Your task to perform on an android device: open a bookmark in the chrome app Image 0: 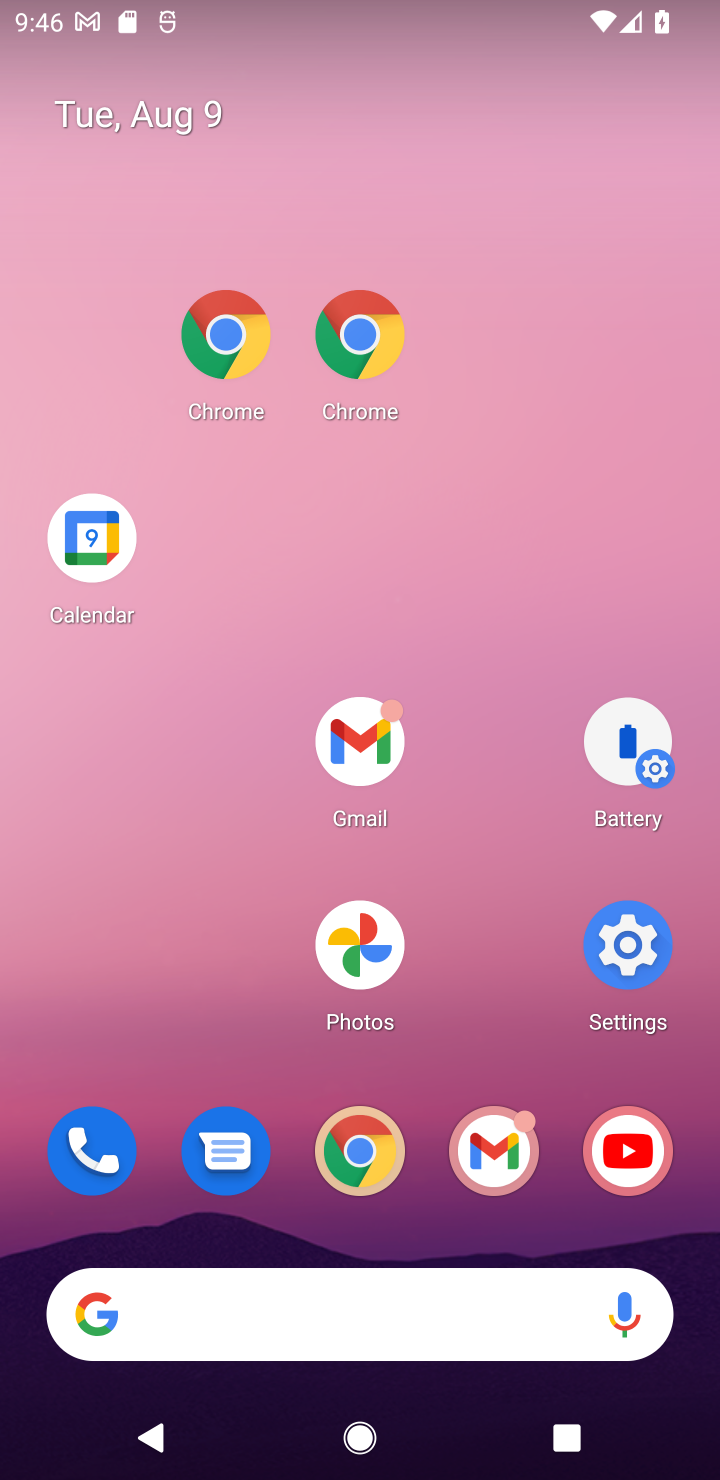
Step 0: click (271, 592)
Your task to perform on an android device: open a bookmark in the chrome app Image 1: 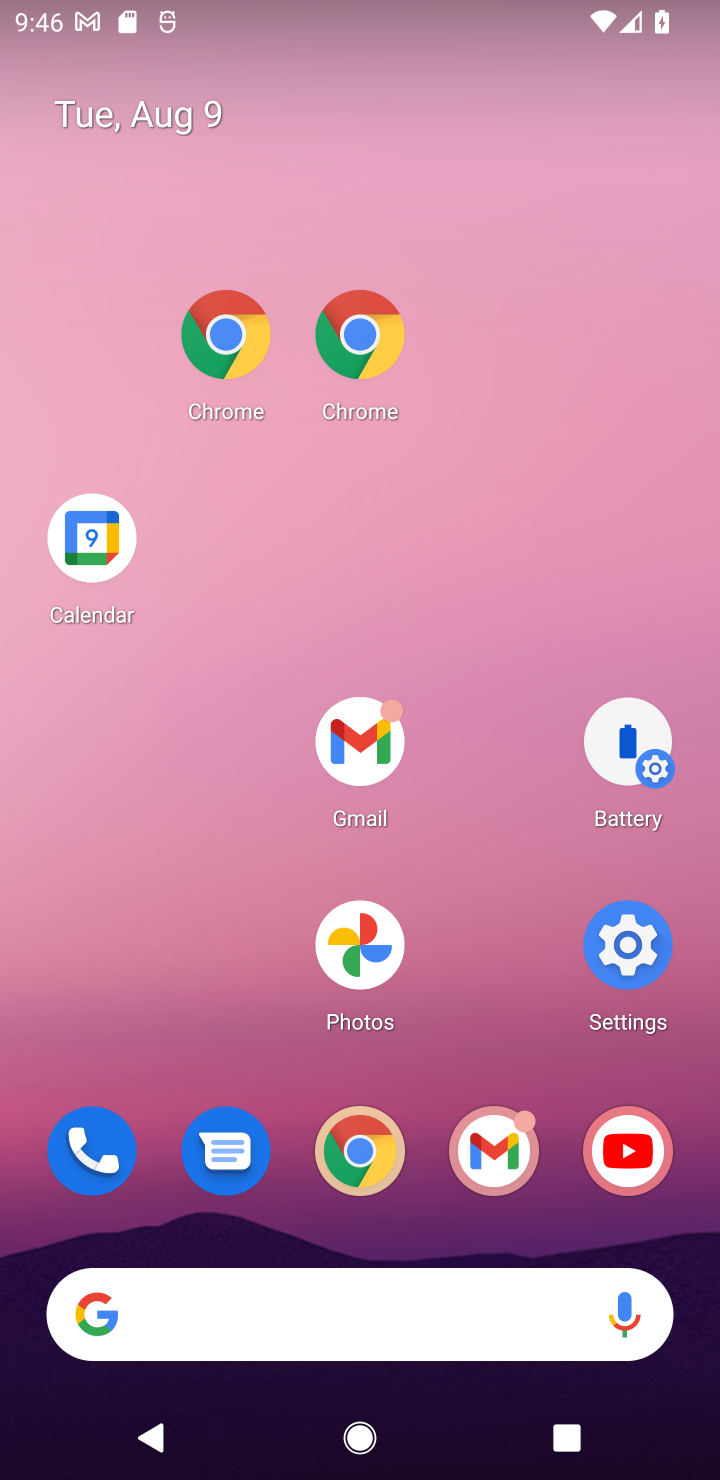
Step 1: drag from (365, 1000) to (409, 625)
Your task to perform on an android device: open a bookmark in the chrome app Image 2: 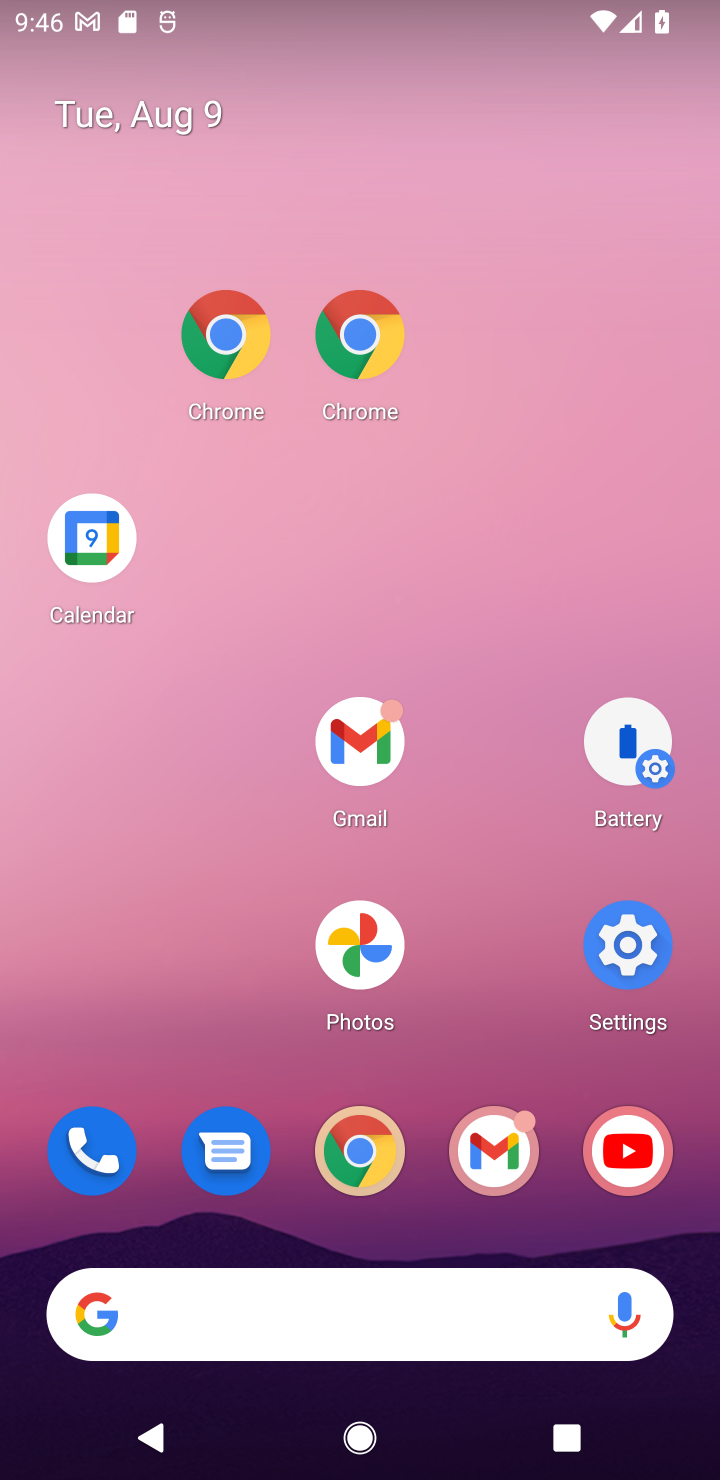
Step 2: click (480, 529)
Your task to perform on an android device: open a bookmark in the chrome app Image 3: 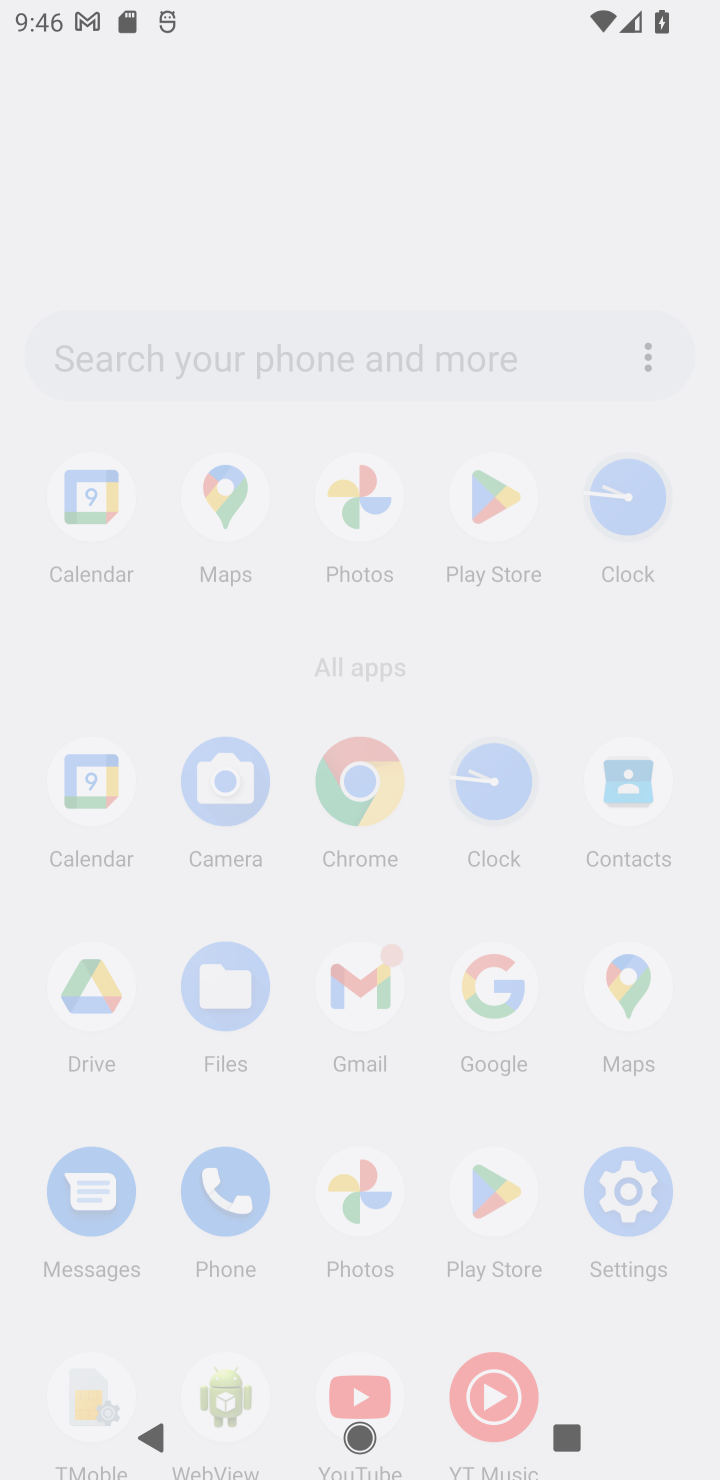
Step 3: drag from (480, 976) to (442, 370)
Your task to perform on an android device: open a bookmark in the chrome app Image 4: 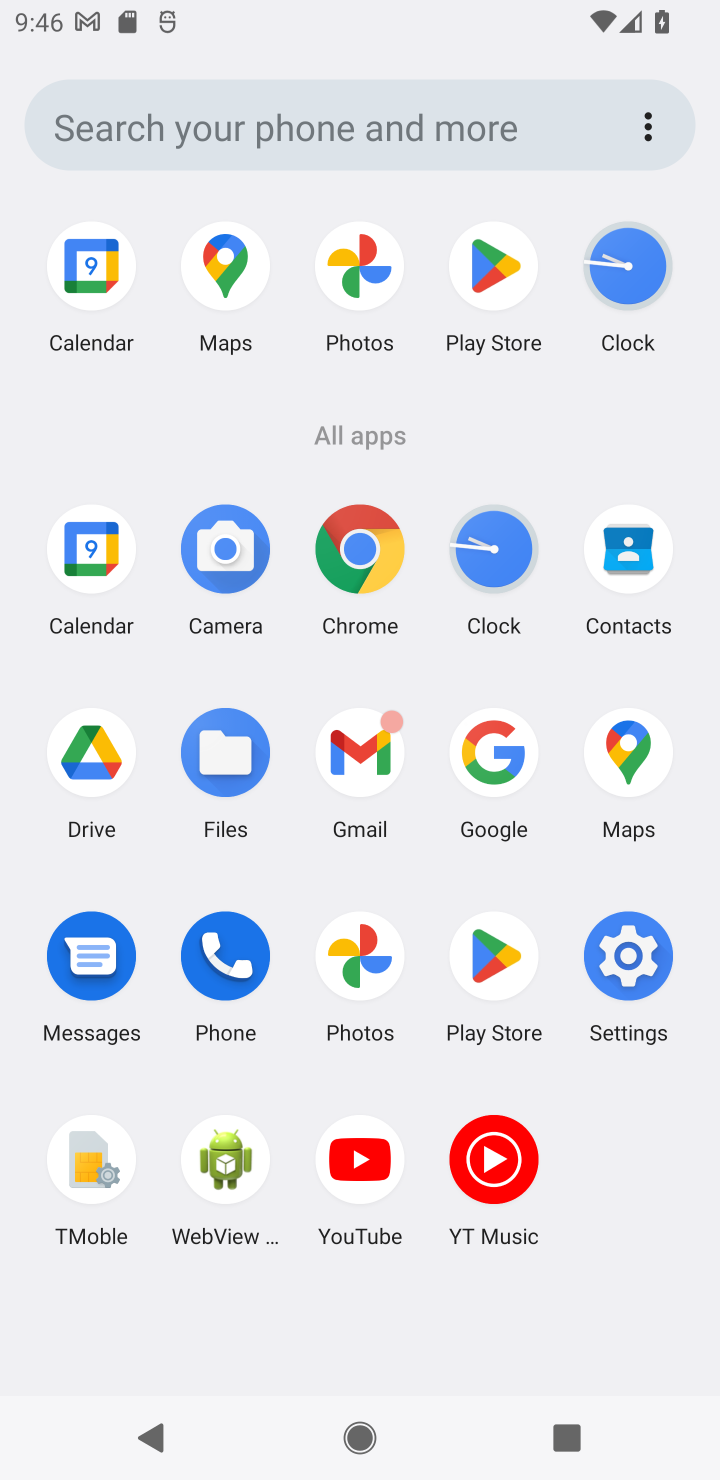
Step 4: click (341, 542)
Your task to perform on an android device: open a bookmark in the chrome app Image 5: 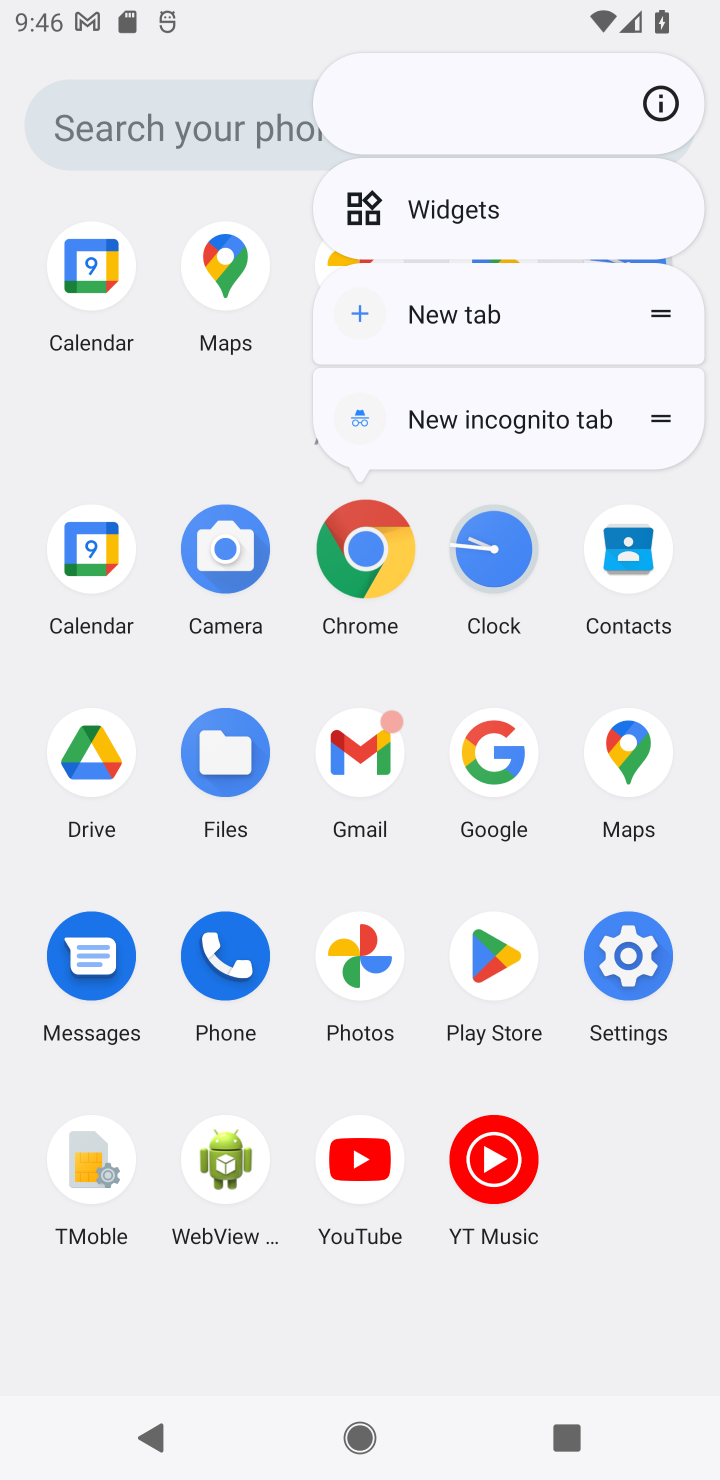
Step 5: click (366, 566)
Your task to perform on an android device: open a bookmark in the chrome app Image 6: 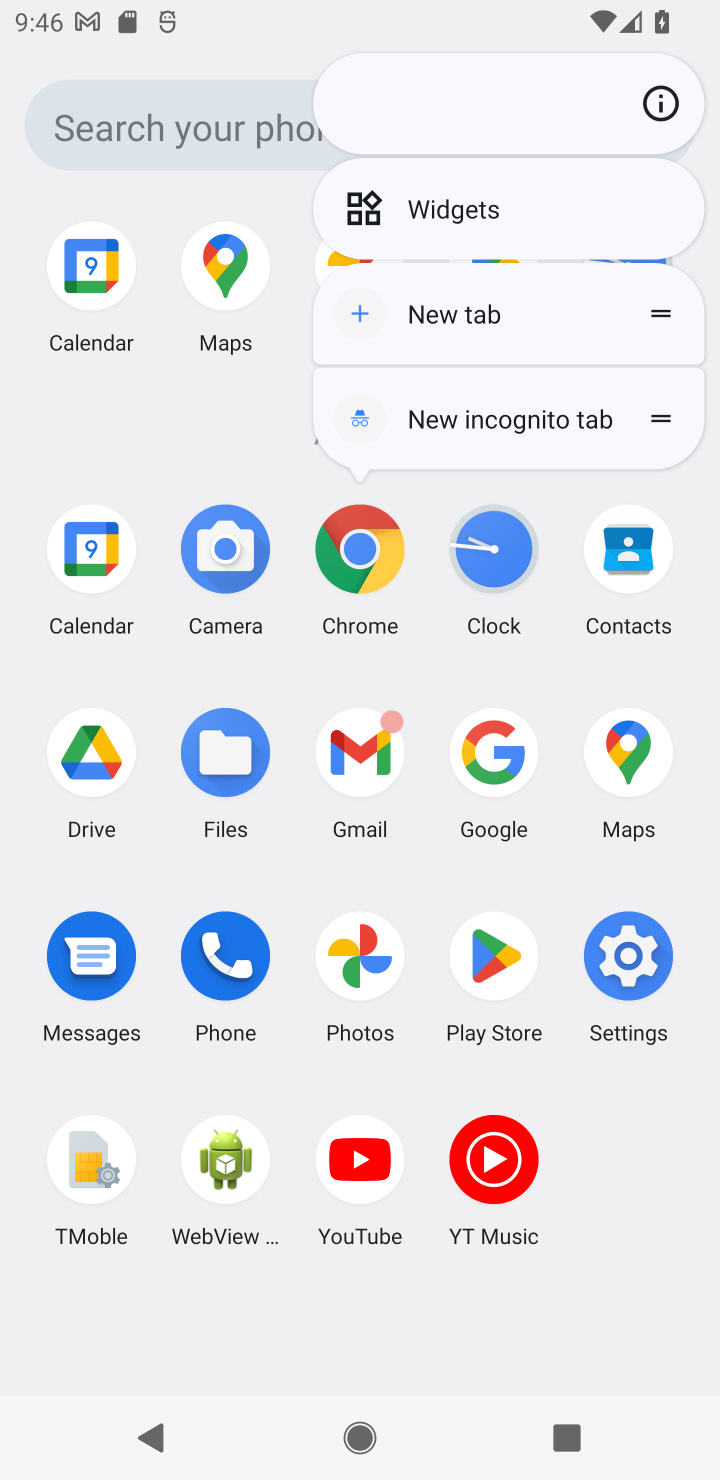
Step 6: click (366, 566)
Your task to perform on an android device: open a bookmark in the chrome app Image 7: 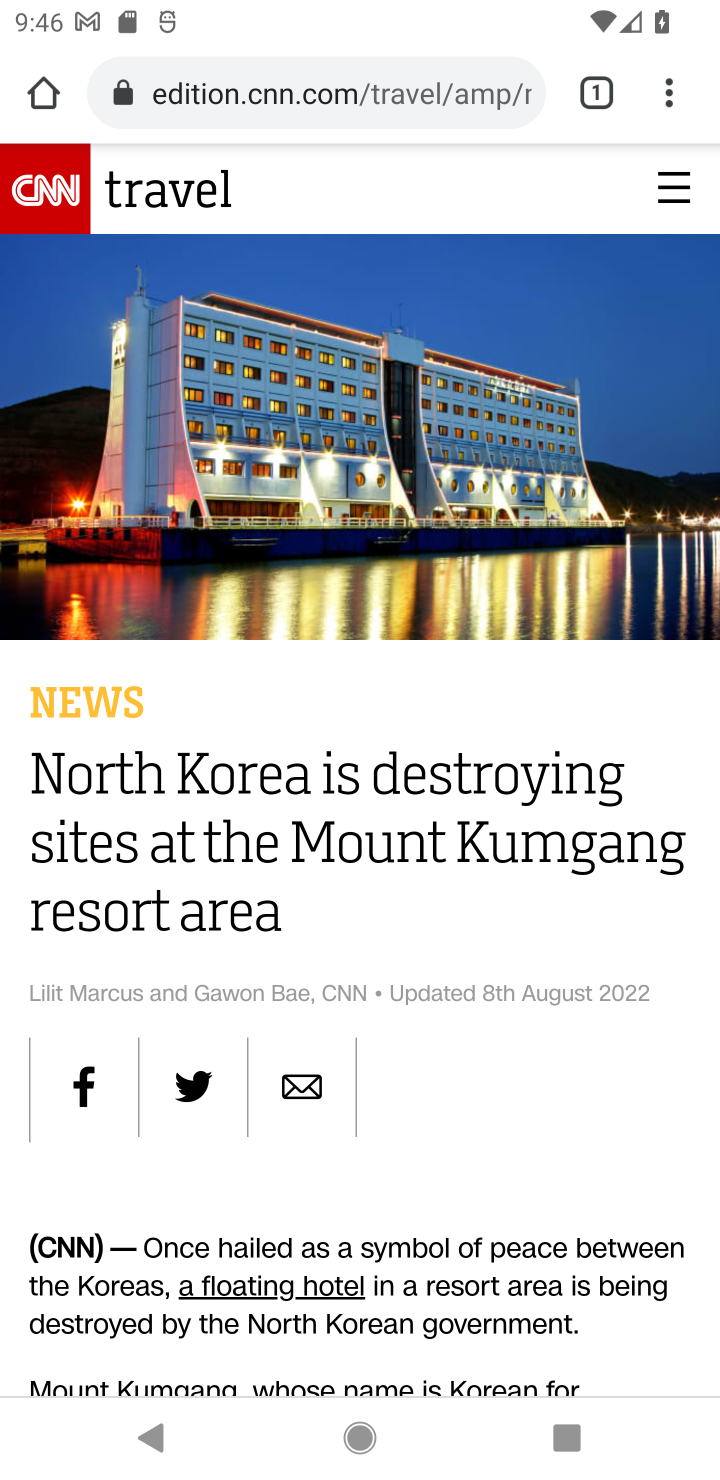
Step 7: drag from (675, 85) to (422, 536)
Your task to perform on an android device: open a bookmark in the chrome app Image 8: 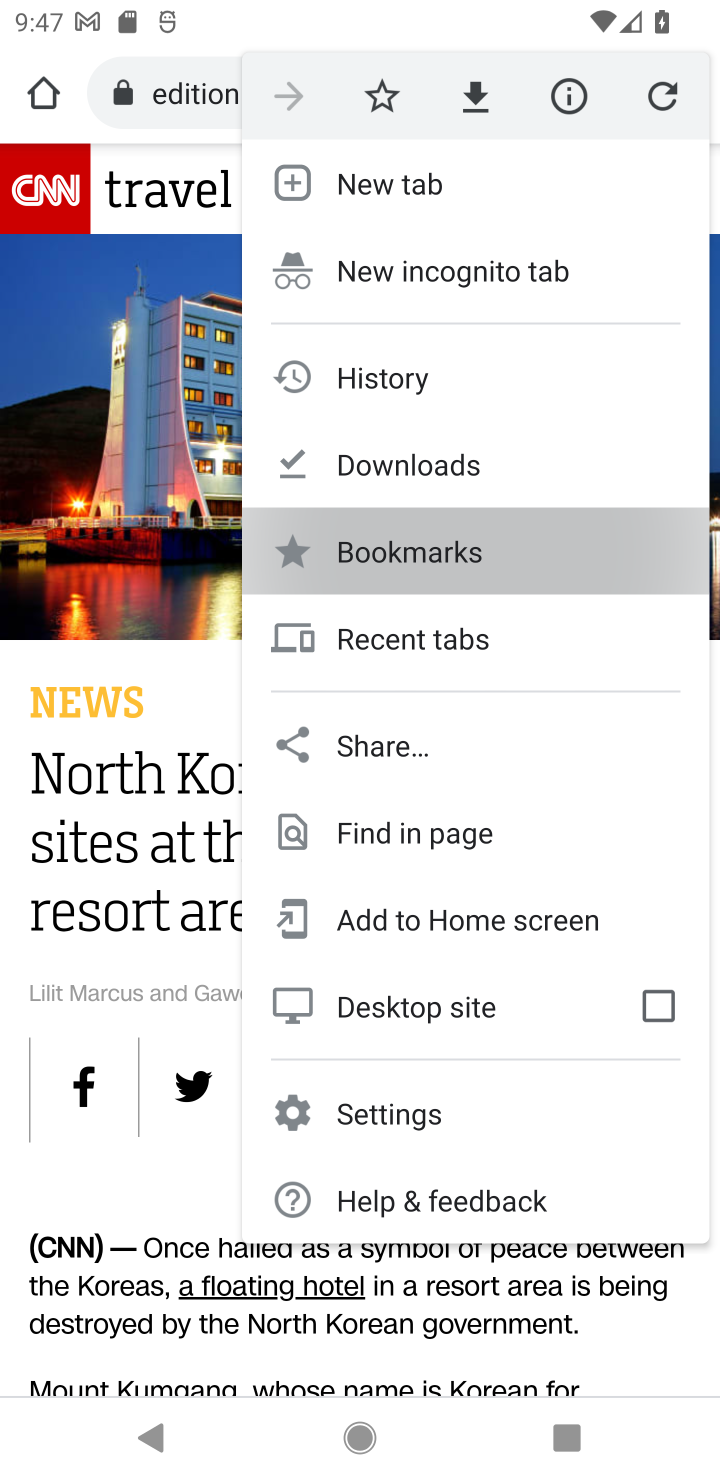
Step 8: click (445, 541)
Your task to perform on an android device: open a bookmark in the chrome app Image 9: 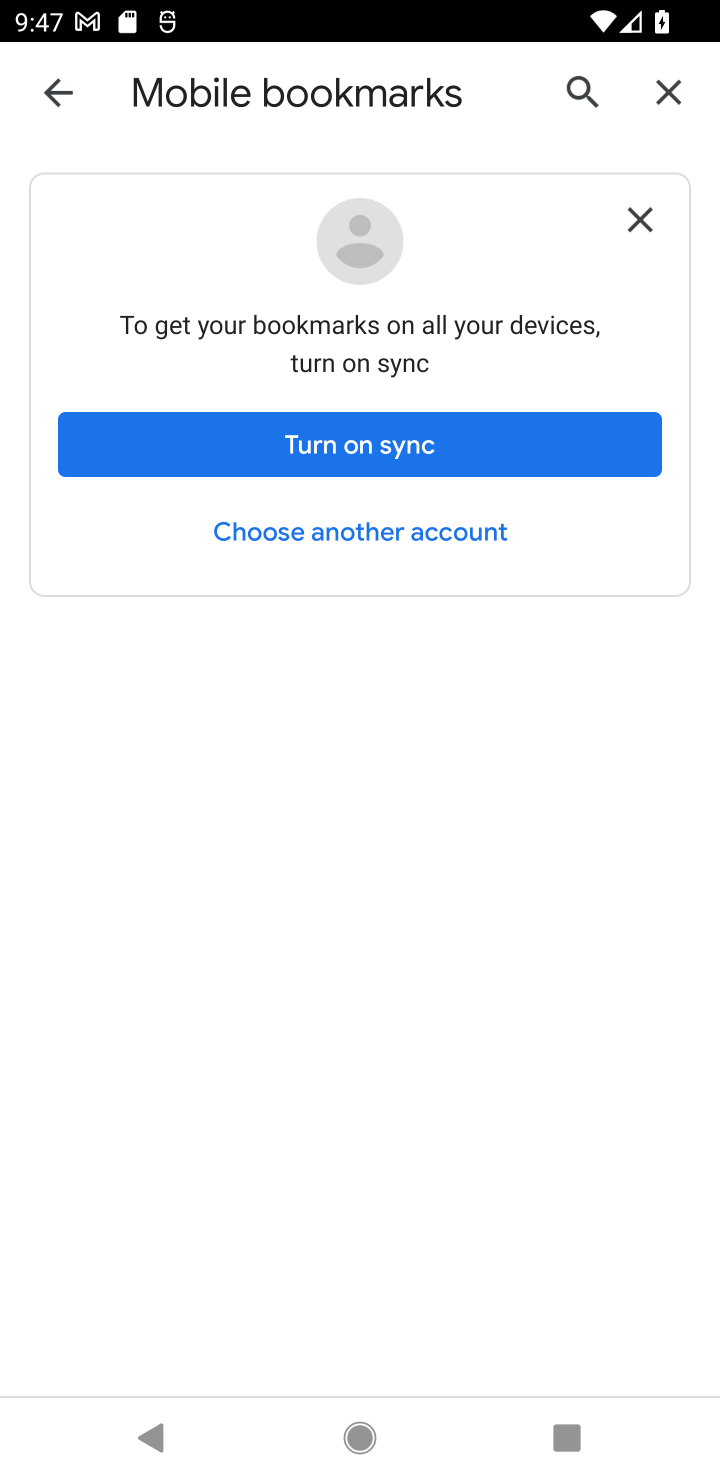
Step 9: click (636, 227)
Your task to perform on an android device: open a bookmark in the chrome app Image 10: 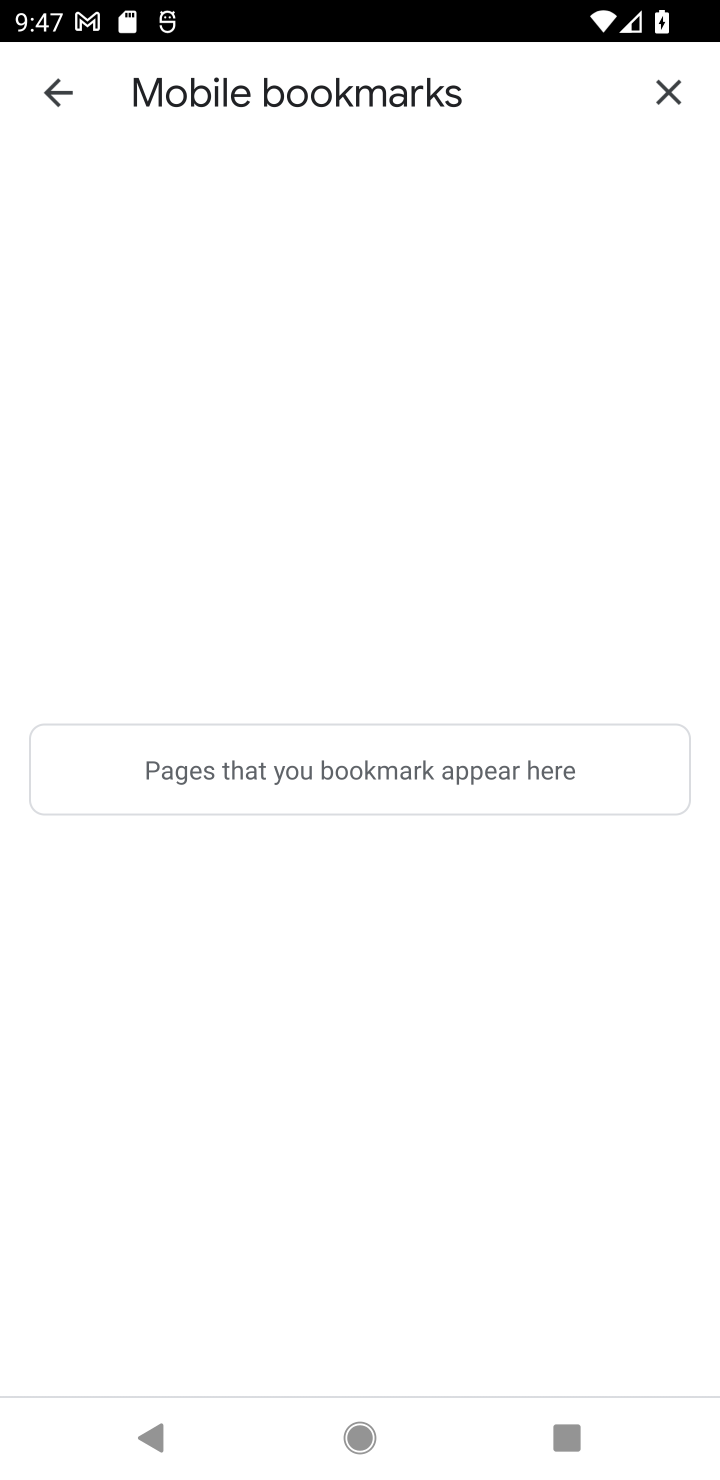
Step 10: task complete